Your task to perform on an android device: toggle data saver in the chrome app Image 0: 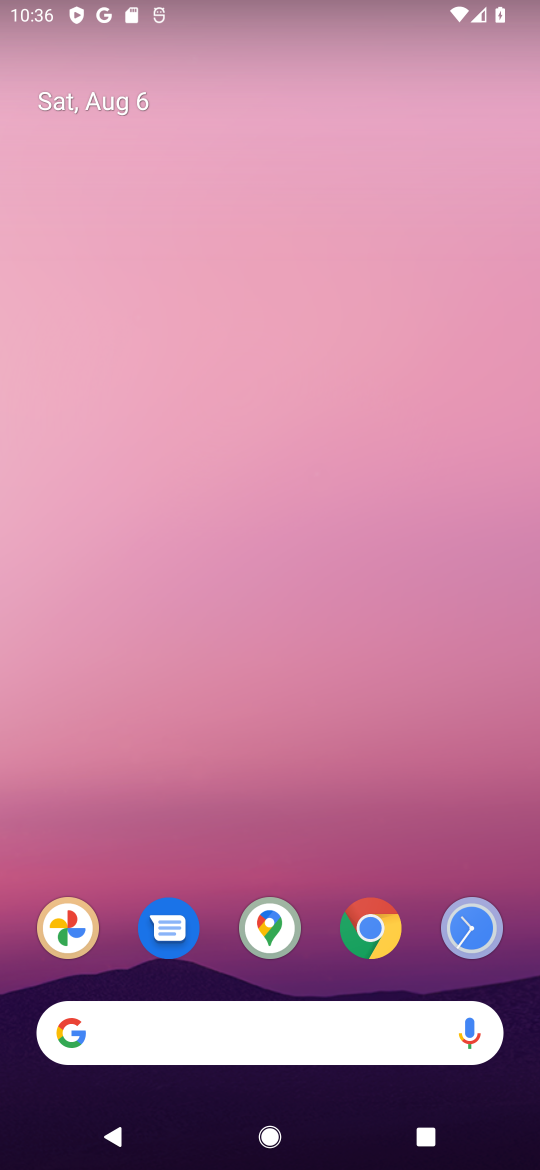
Step 0: click (362, 920)
Your task to perform on an android device: toggle data saver in the chrome app Image 1: 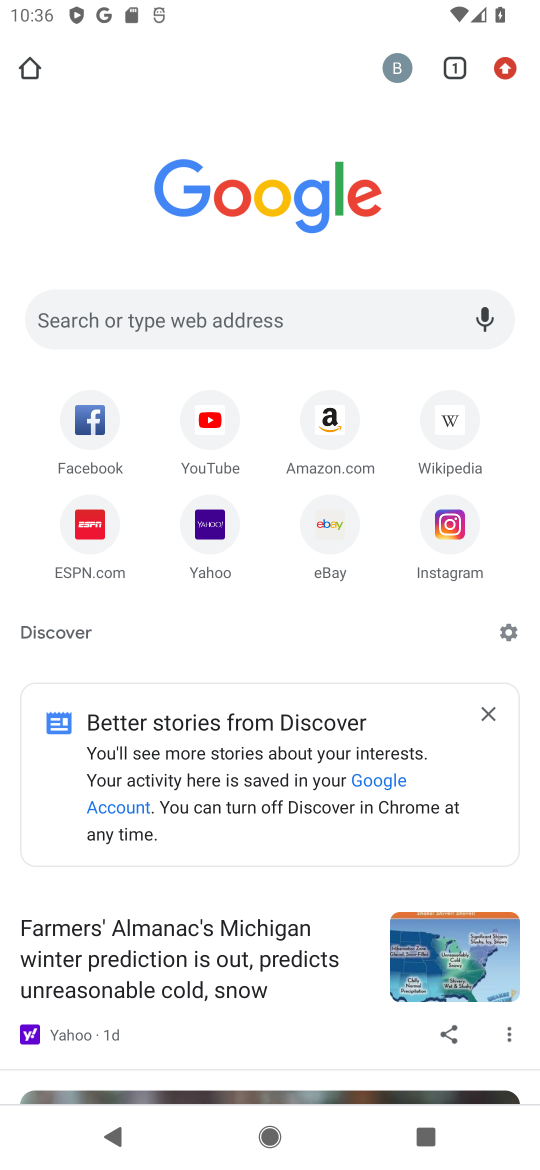
Step 1: click (510, 72)
Your task to perform on an android device: toggle data saver in the chrome app Image 2: 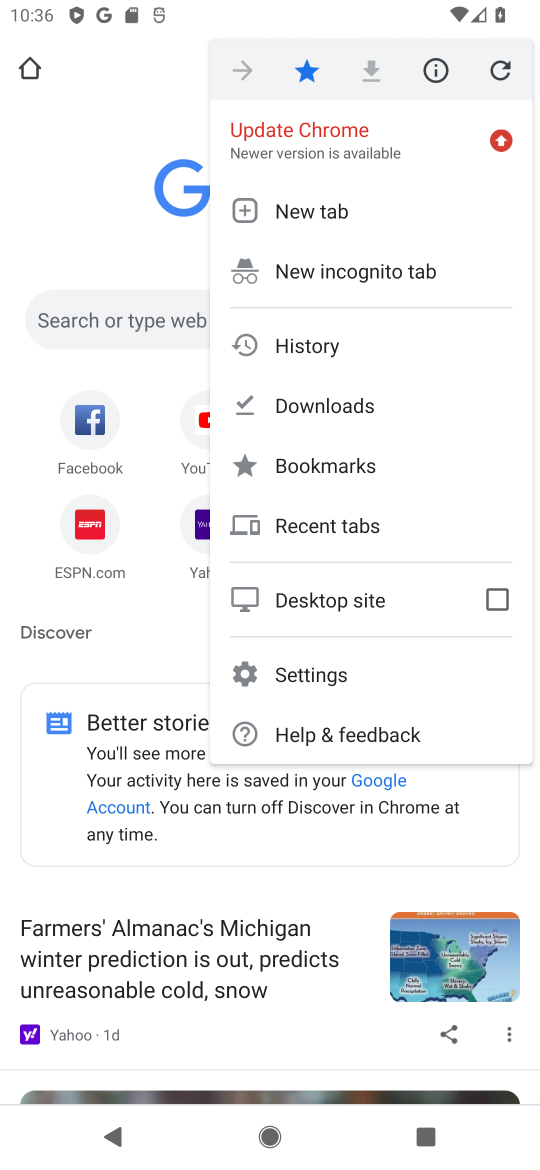
Step 2: click (305, 679)
Your task to perform on an android device: toggle data saver in the chrome app Image 3: 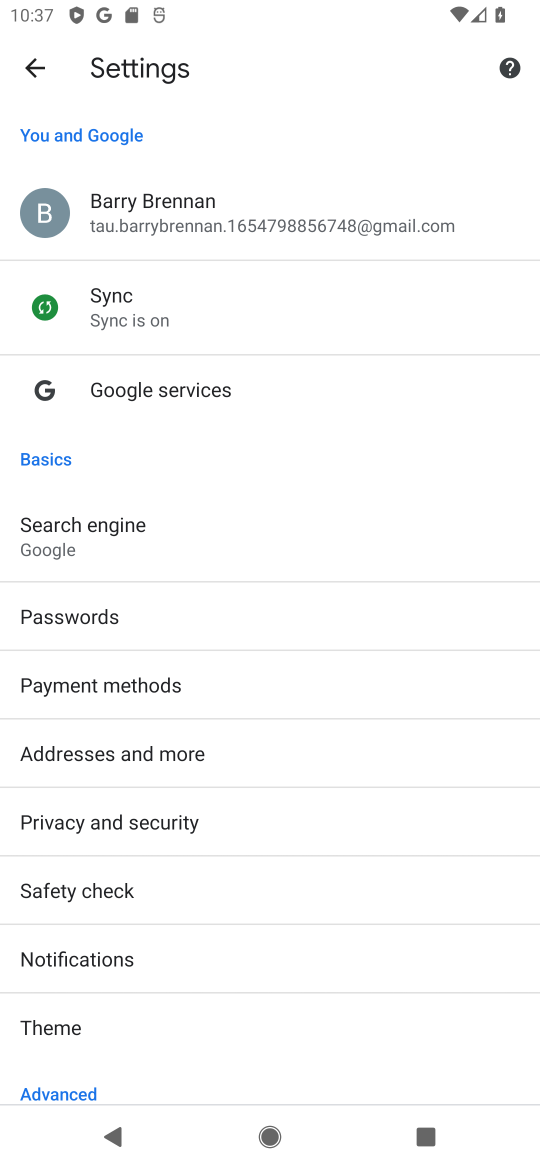
Step 3: drag from (328, 465) to (323, 82)
Your task to perform on an android device: toggle data saver in the chrome app Image 4: 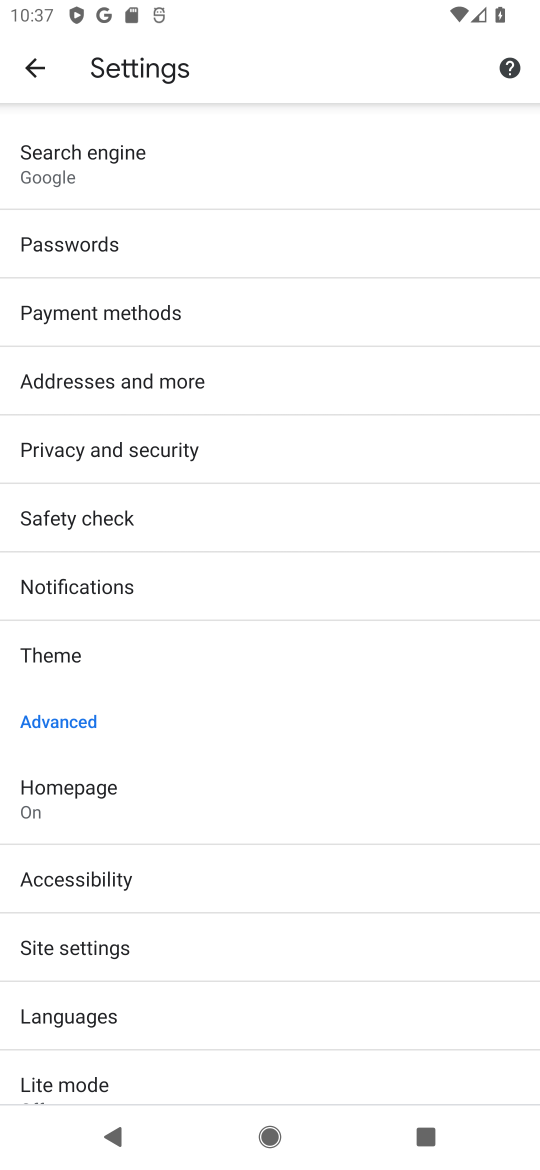
Step 4: click (78, 1072)
Your task to perform on an android device: toggle data saver in the chrome app Image 5: 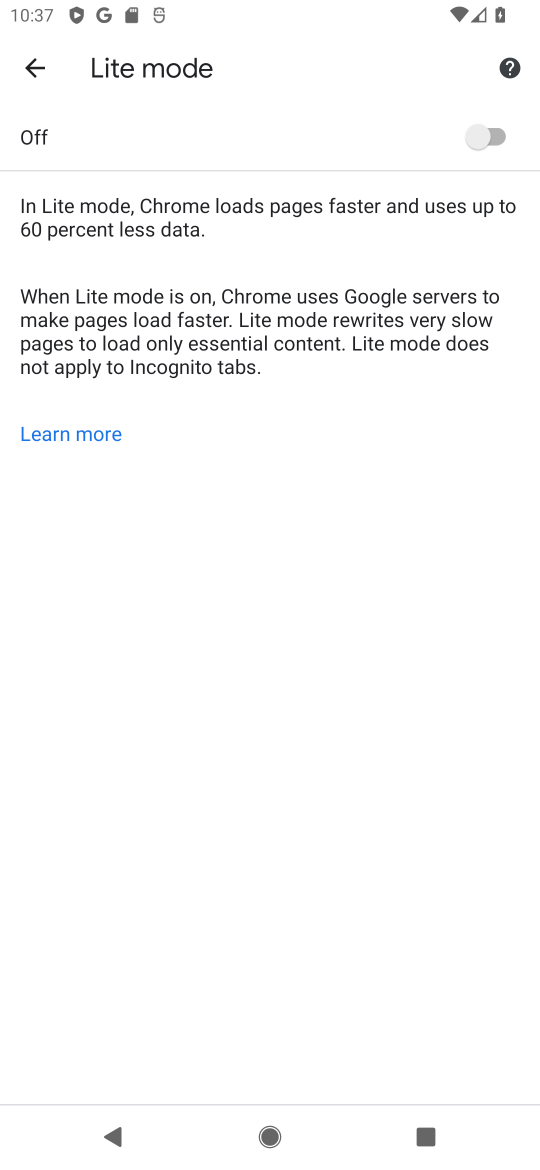
Step 5: click (490, 143)
Your task to perform on an android device: toggle data saver in the chrome app Image 6: 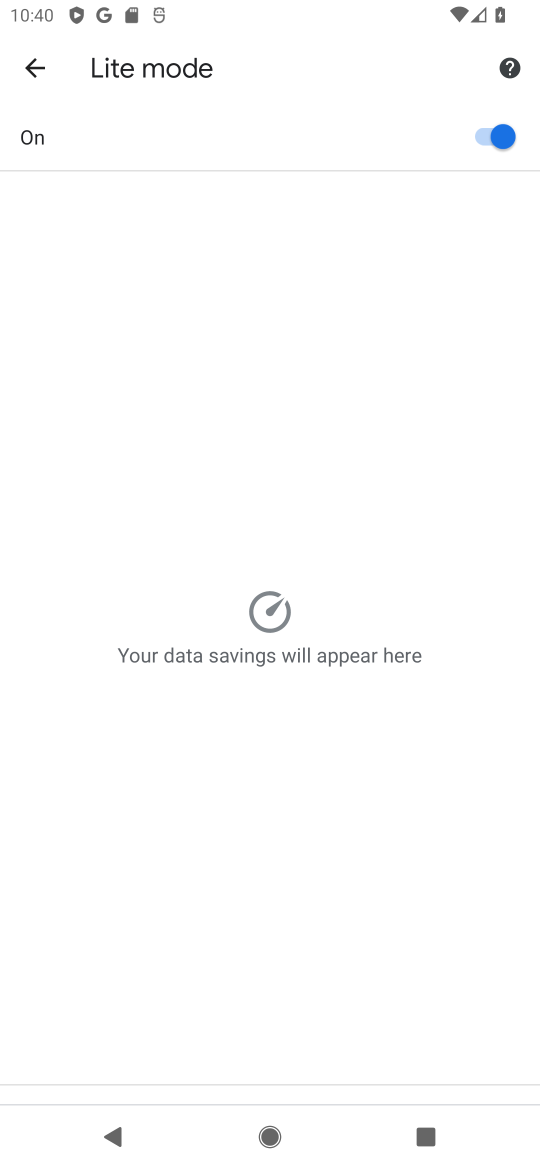
Step 6: task complete